Your task to perform on an android device: set an alarm Image 0: 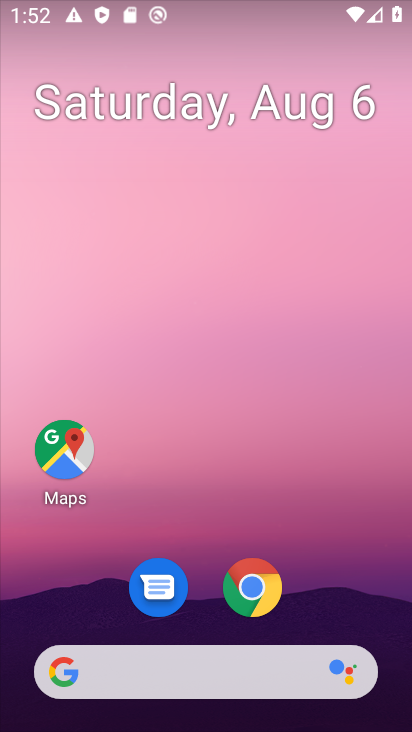
Step 0: drag from (199, 530) to (198, 108)
Your task to perform on an android device: set an alarm Image 1: 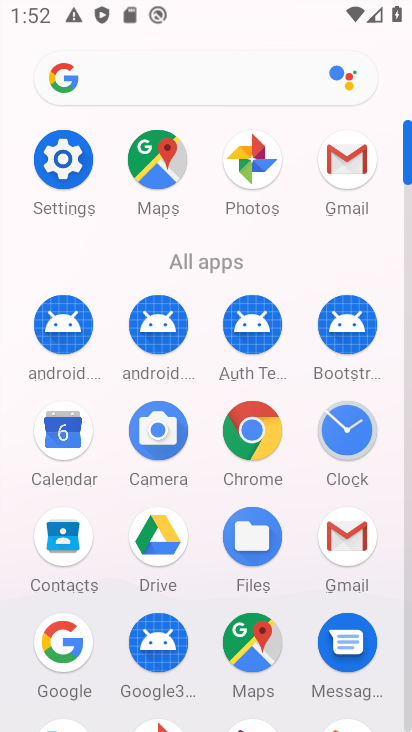
Step 1: click (346, 447)
Your task to perform on an android device: set an alarm Image 2: 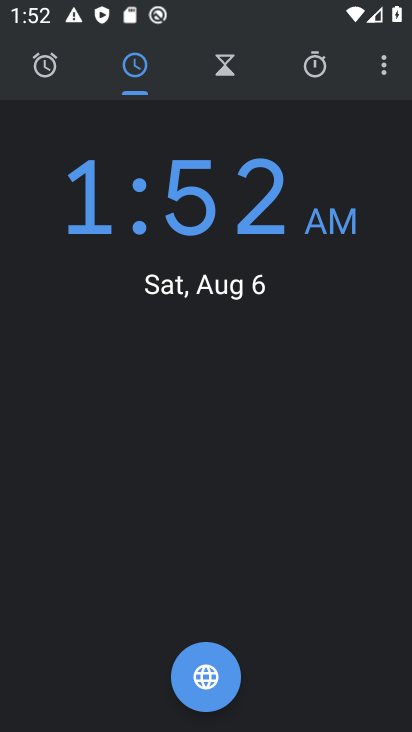
Step 2: click (32, 73)
Your task to perform on an android device: set an alarm Image 3: 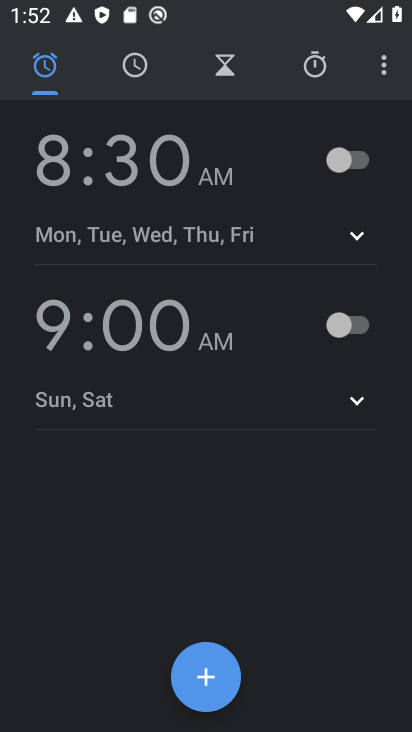
Step 3: click (354, 151)
Your task to perform on an android device: set an alarm Image 4: 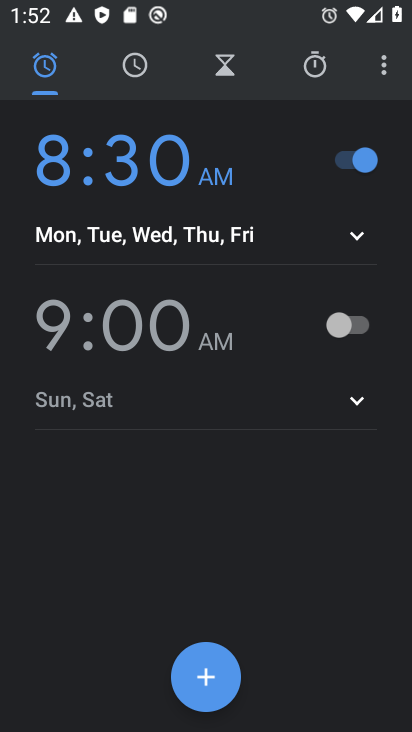
Step 4: task complete